Your task to perform on an android device: delete a single message in the gmail app Image 0: 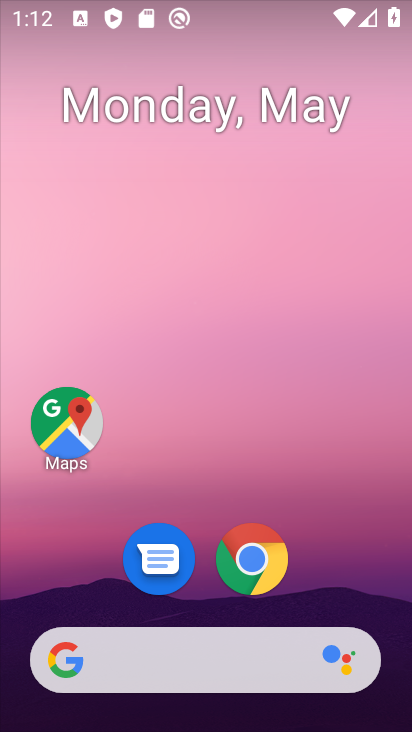
Step 0: drag from (330, 531) to (412, 1)
Your task to perform on an android device: delete a single message in the gmail app Image 1: 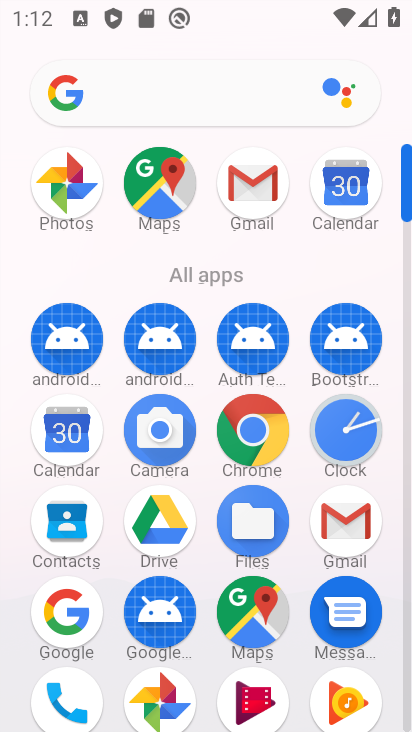
Step 1: click (263, 166)
Your task to perform on an android device: delete a single message in the gmail app Image 2: 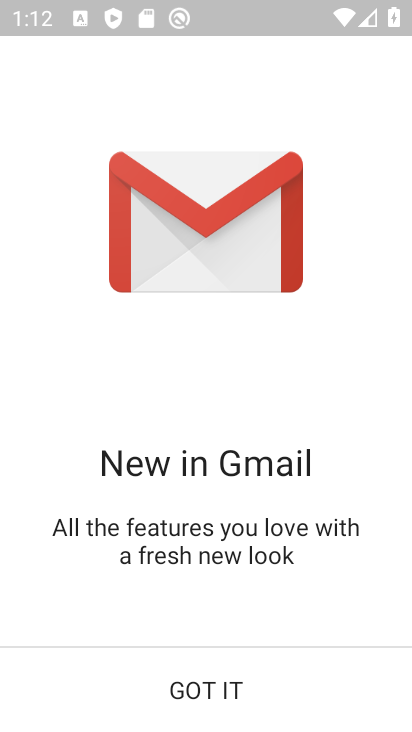
Step 2: click (198, 684)
Your task to perform on an android device: delete a single message in the gmail app Image 3: 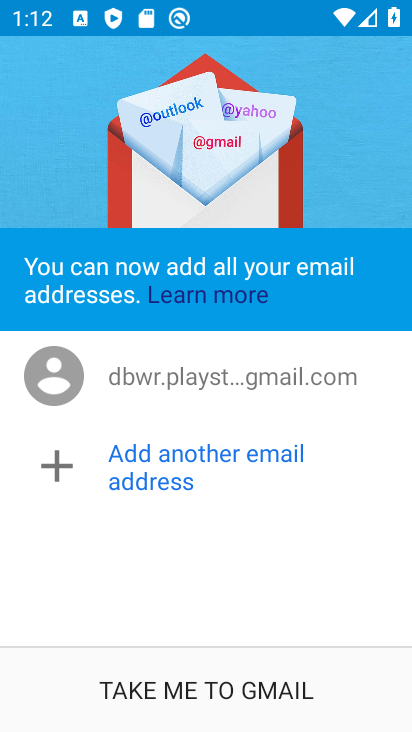
Step 3: click (189, 679)
Your task to perform on an android device: delete a single message in the gmail app Image 4: 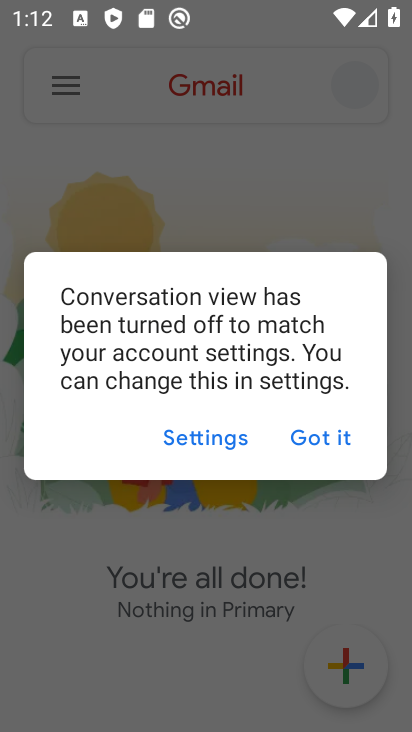
Step 4: click (323, 432)
Your task to perform on an android device: delete a single message in the gmail app Image 5: 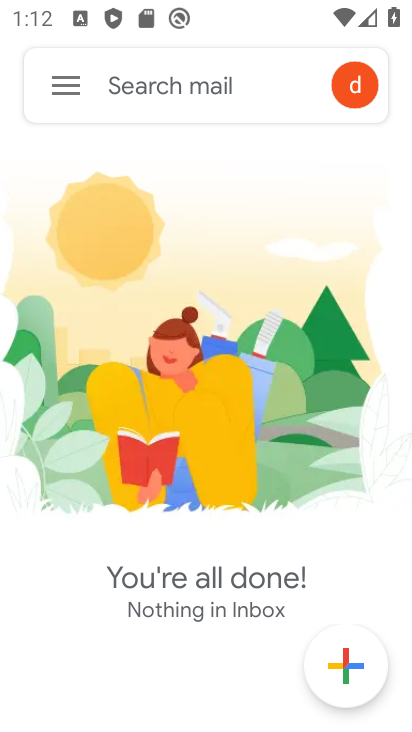
Step 5: task complete